Your task to perform on an android device: turn on improve location accuracy Image 0: 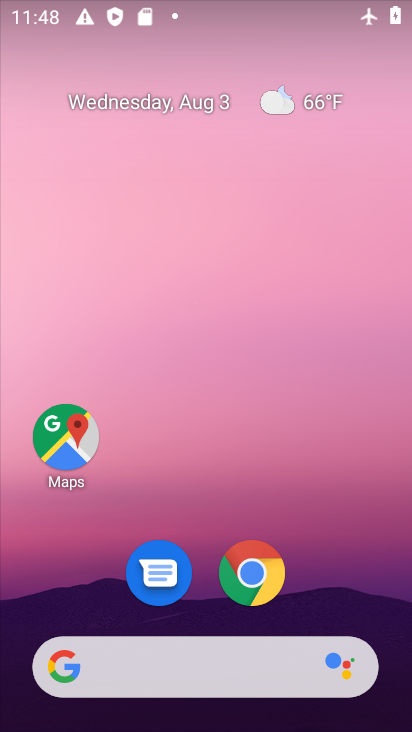
Step 0: drag from (311, 403) to (331, 59)
Your task to perform on an android device: turn on improve location accuracy Image 1: 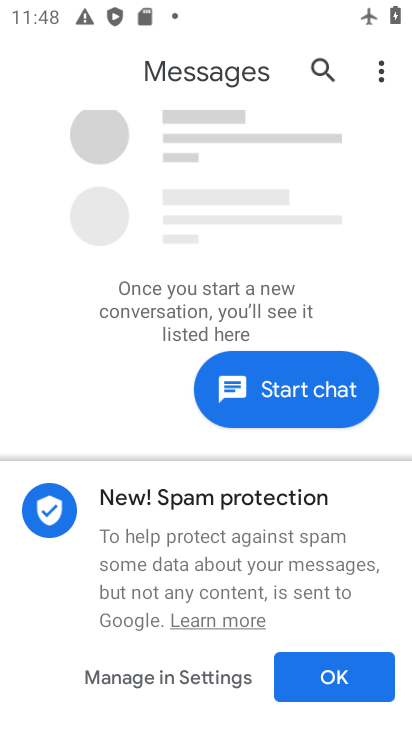
Step 1: press home button
Your task to perform on an android device: turn on improve location accuracy Image 2: 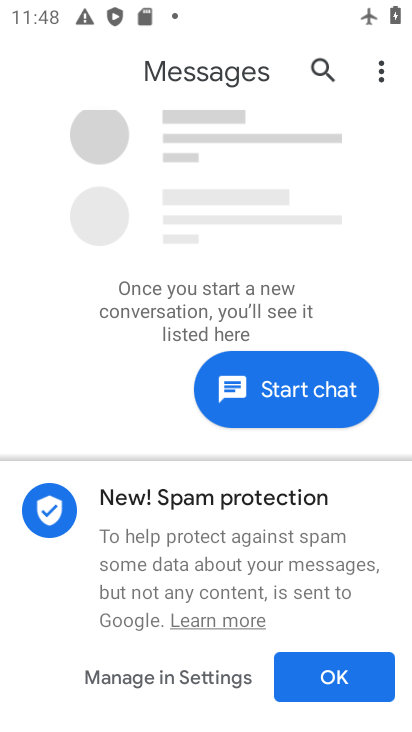
Step 2: press home button
Your task to perform on an android device: turn on improve location accuracy Image 3: 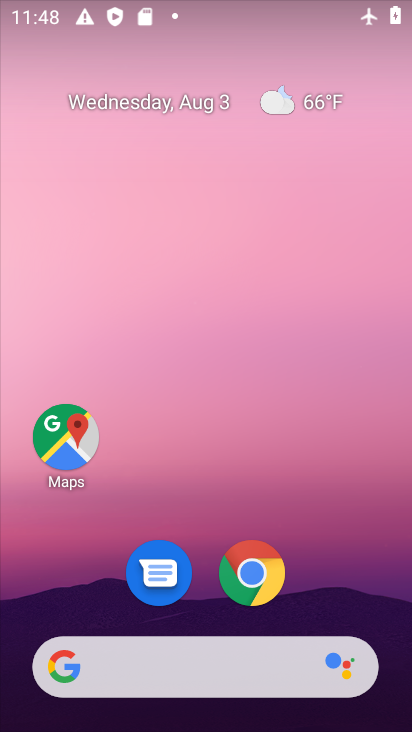
Step 3: drag from (358, 587) to (378, 70)
Your task to perform on an android device: turn on improve location accuracy Image 4: 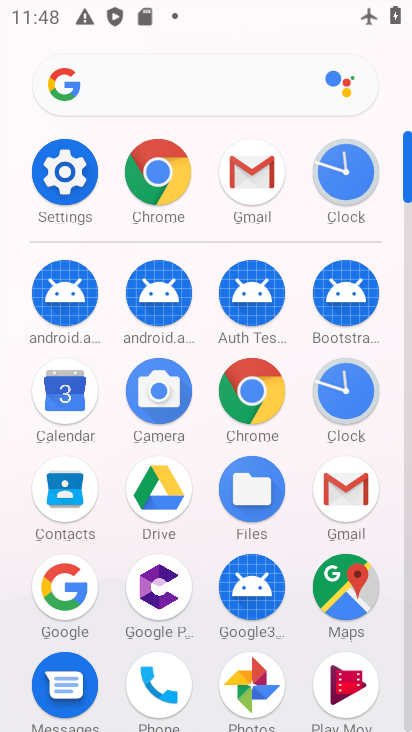
Step 4: click (68, 174)
Your task to perform on an android device: turn on improve location accuracy Image 5: 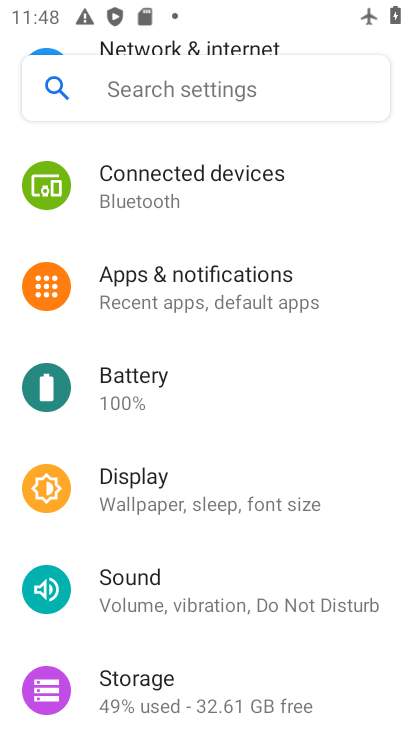
Step 5: drag from (256, 203) to (306, 221)
Your task to perform on an android device: turn on improve location accuracy Image 6: 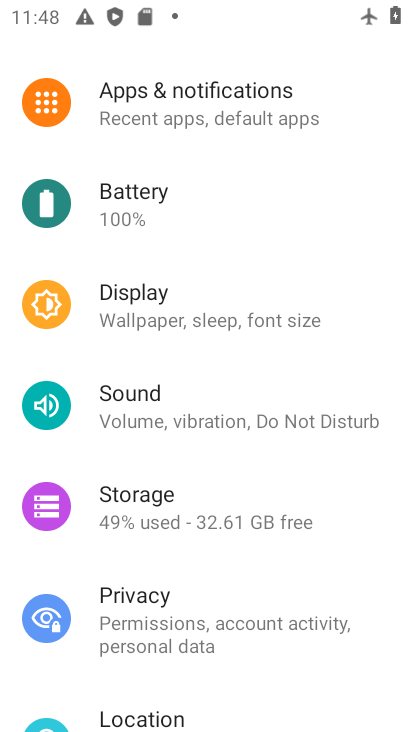
Step 6: drag from (221, 606) to (266, 335)
Your task to perform on an android device: turn on improve location accuracy Image 7: 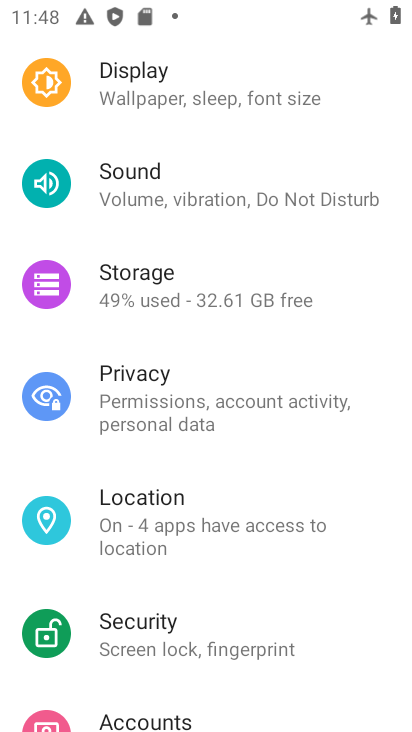
Step 7: click (166, 506)
Your task to perform on an android device: turn on improve location accuracy Image 8: 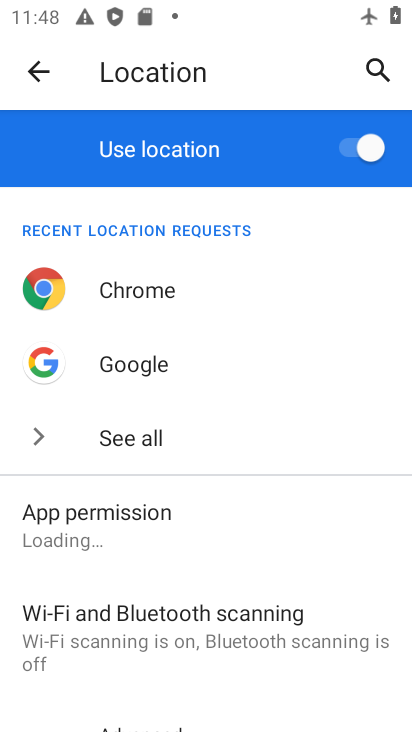
Step 8: drag from (242, 551) to (306, 209)
Your task to perform on an android device: turn on improve location accuracy Image 9: 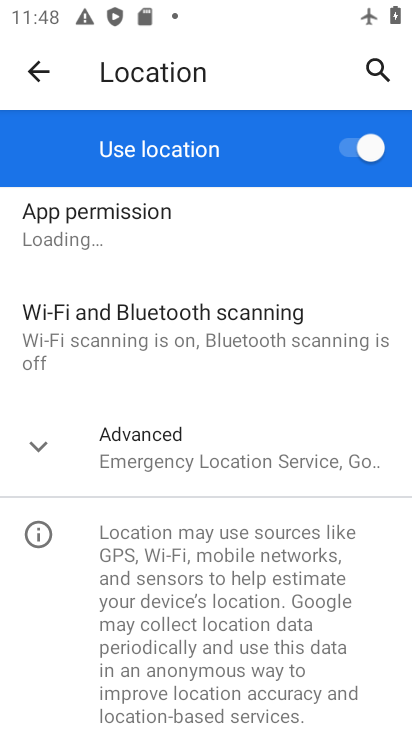
Step 9: click (256, 462)
Your task to perform on an android device: turn on improve location accuracy Image 10: 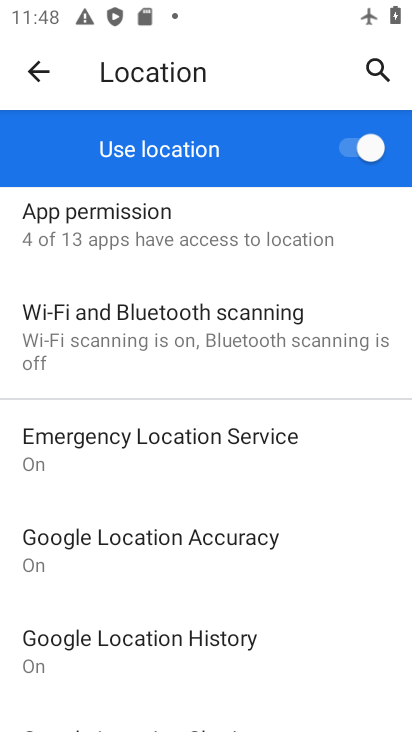
Step 10: click (231, 541)
Your task to perform on an android device: turn on improve location accuracy Image 11: 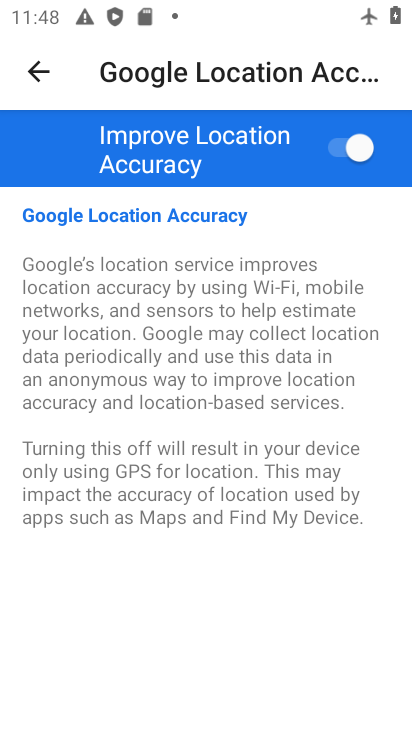
Step 11: task complete